Your task to perform on an android device: visit the assistant section in the google photos Image 0: 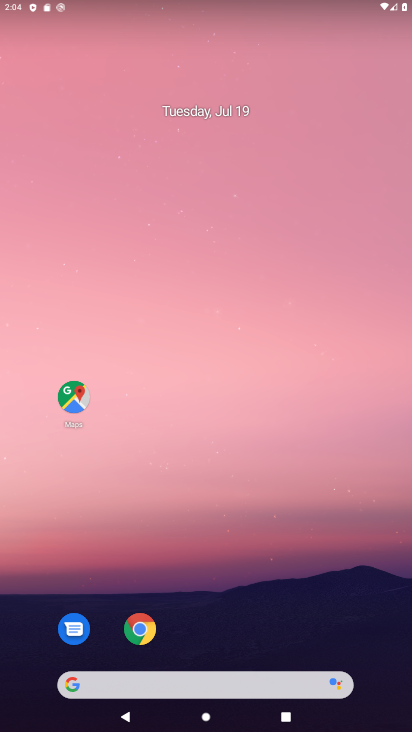
Step 0: drag from (189, 599) to (163, 179)
Your task to perform on an android device: visit the assistant section in the google photos Image 1: 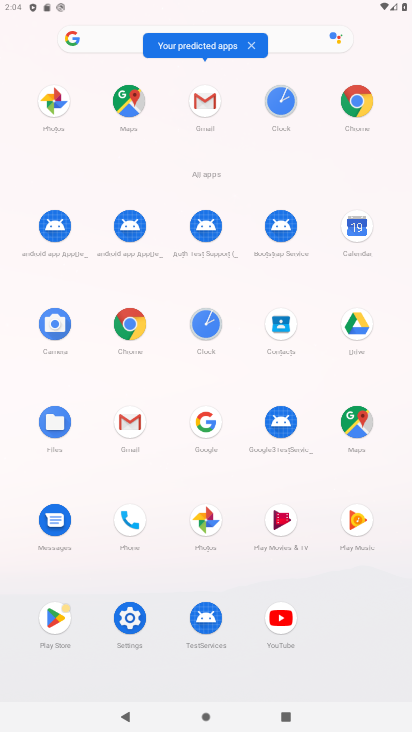
Step 1: click (193, 533)
Your task to perform on an android device: visit the assistant section in the google photos Image 2: 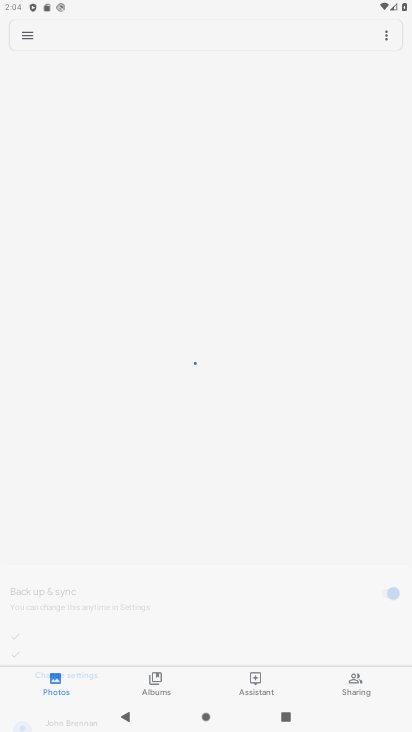
Step 2: click (262, 678)
Your task to perform on an android device: visit the assistant section in the google photos Image 3: 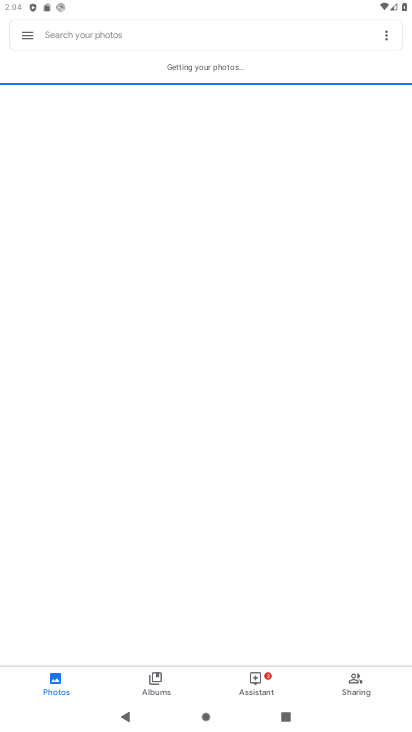
Step 3: click (255, 680)
Your task to perform on an android device: visit the assistant section in the google photos Image 4: 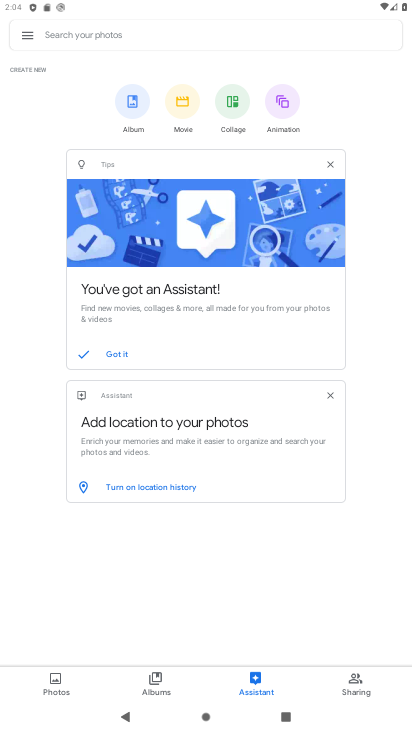
Step 4: task complete